Your task to perform on an android device: search for starred emails in the gmail app Image 0: 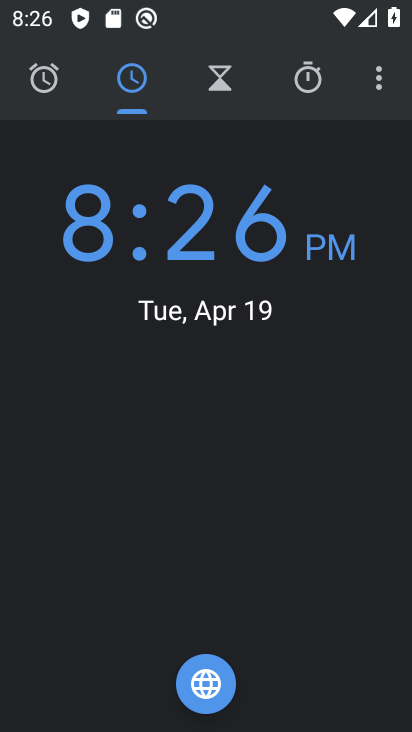
Step 0: press home button
Your task to perform on an android device: search for starred emails in the gmail app Image 1: 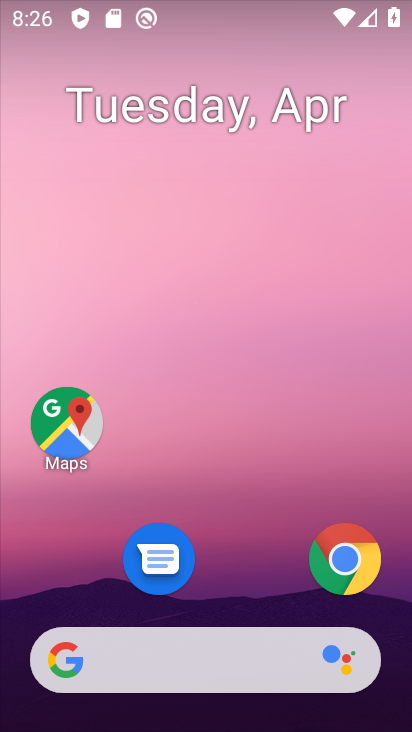
Step 1: drag from (296, 695) to (304, 226)
Your task to perform on an android device: search for starred emails in the gmail app Image 2: 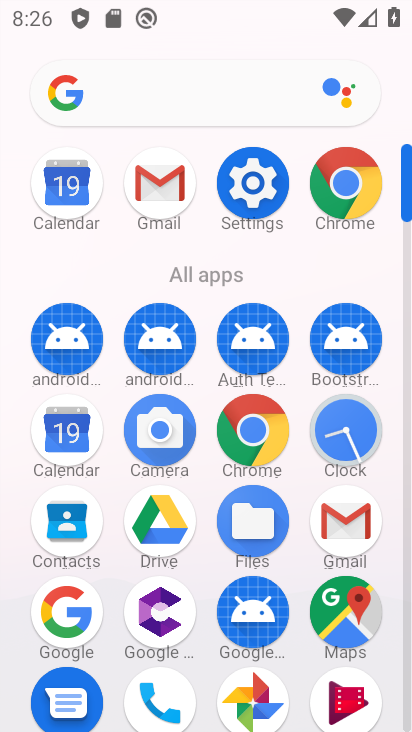
Step 2: click (345, 526)
Your task to perform on an android device: search for starred emails in the gmail app Image 3: 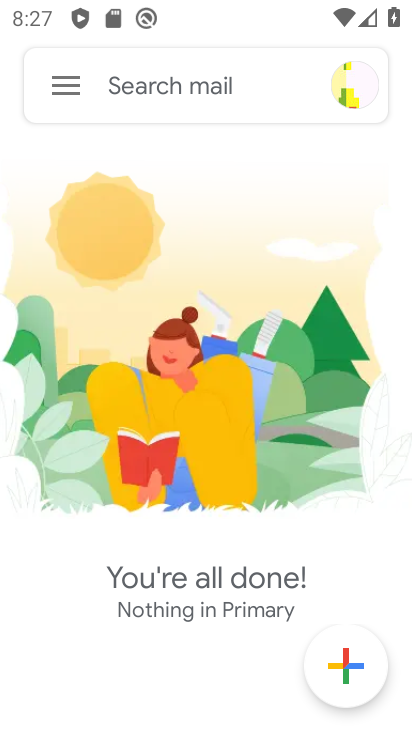
Step 3: click (68, 91)
Your task to perform on an android device: search for starred emails in the gmail app Image 4: 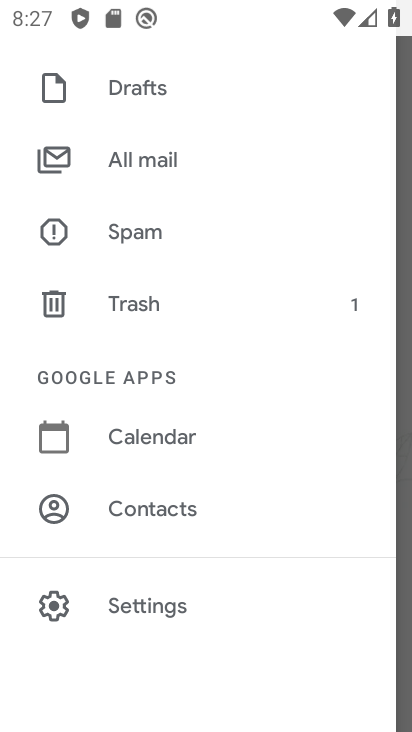
Step 4: drag from (158, 219) to (180, 408)
Your task to perform on an android device: search for starred emails in the gmail app Image 5: 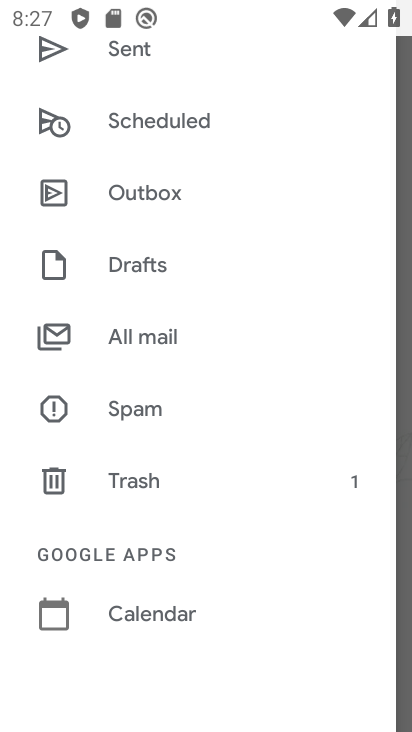
Step 5: drag from (161, 146) to (215, 421)
Your task to perform on an android device: search for starred emails in the gmail app Image 6: 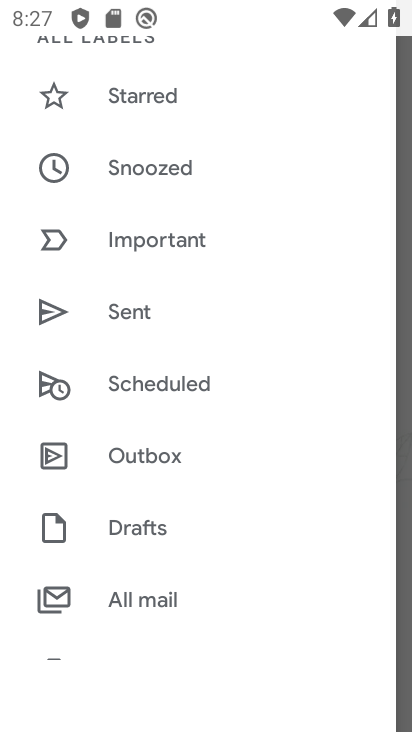
Step 6: click (155, 98)
Your task to perform on an android device: search for starred emails in the gmail app Image 7: 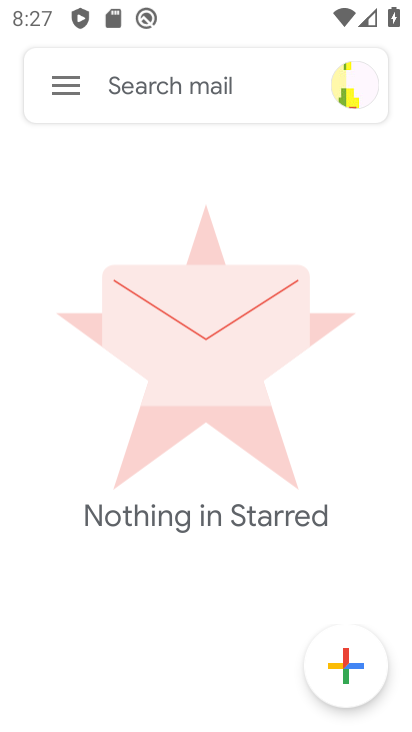
Step 7: task complete